Your task to perform on an android device: open a new tab in the chrome app Image 0: 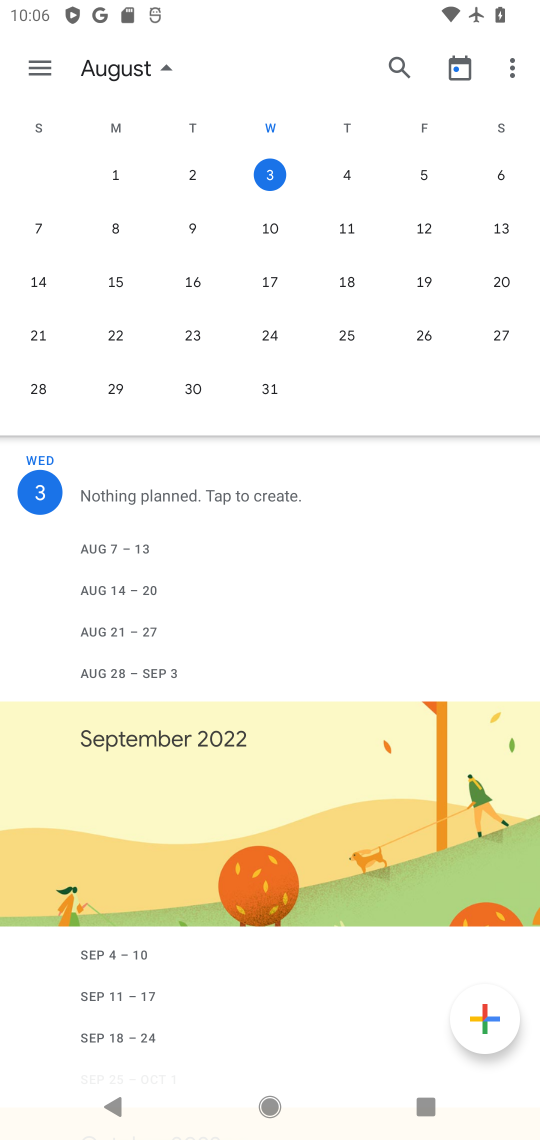
Step 0: press home button
Your task to perform on an android device: open a new tab in the chrome app Image 1: 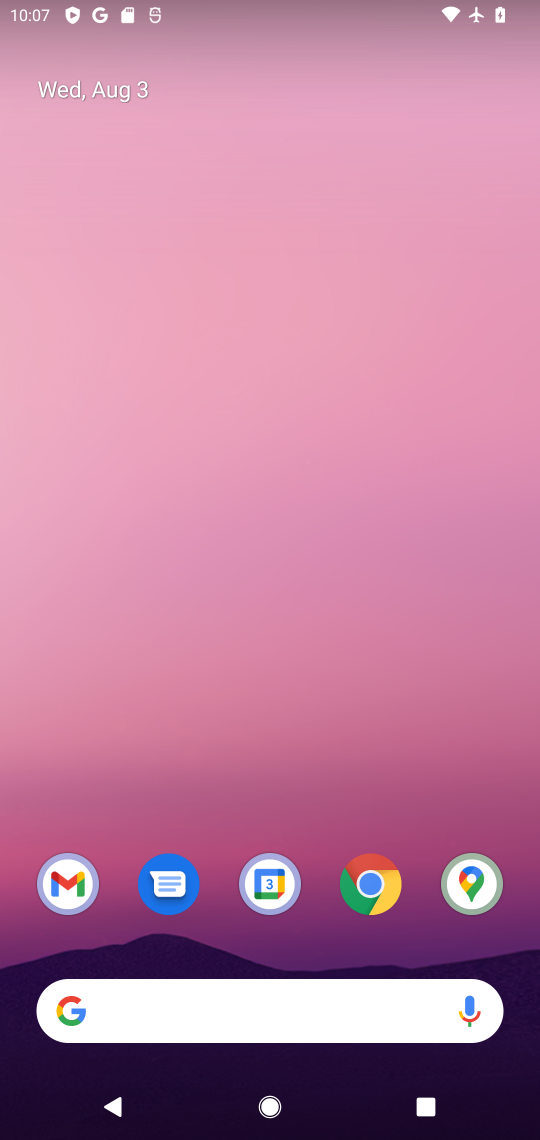
Step 1: click (379, 887)
Your task to perform on an android device: open a new tab in the chrome app Image 2: 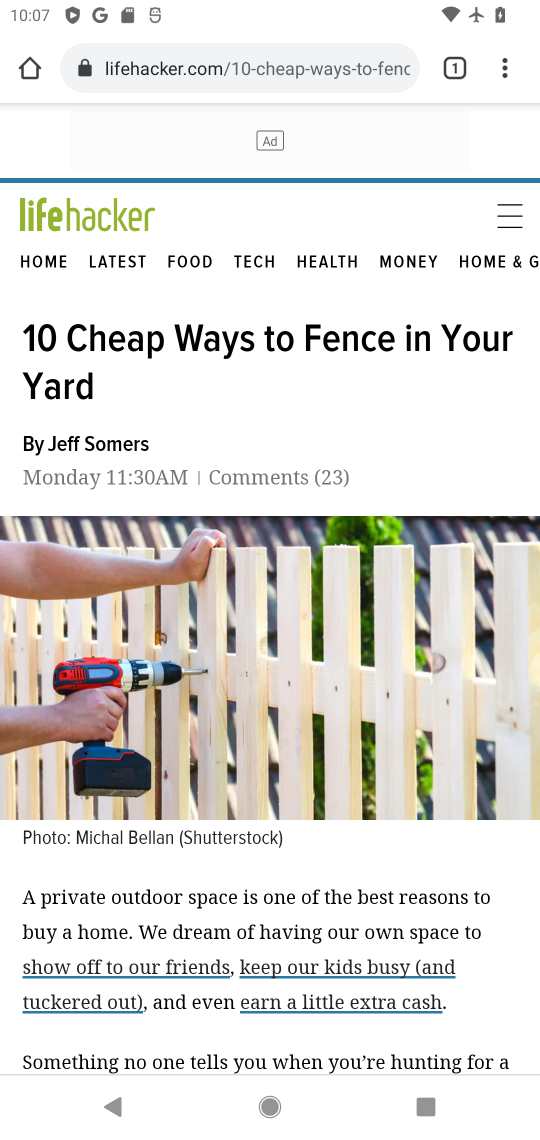
Step 2: click (453, 60)
Your task to perform on an android device: open a new tab in the chrome app Image 3: 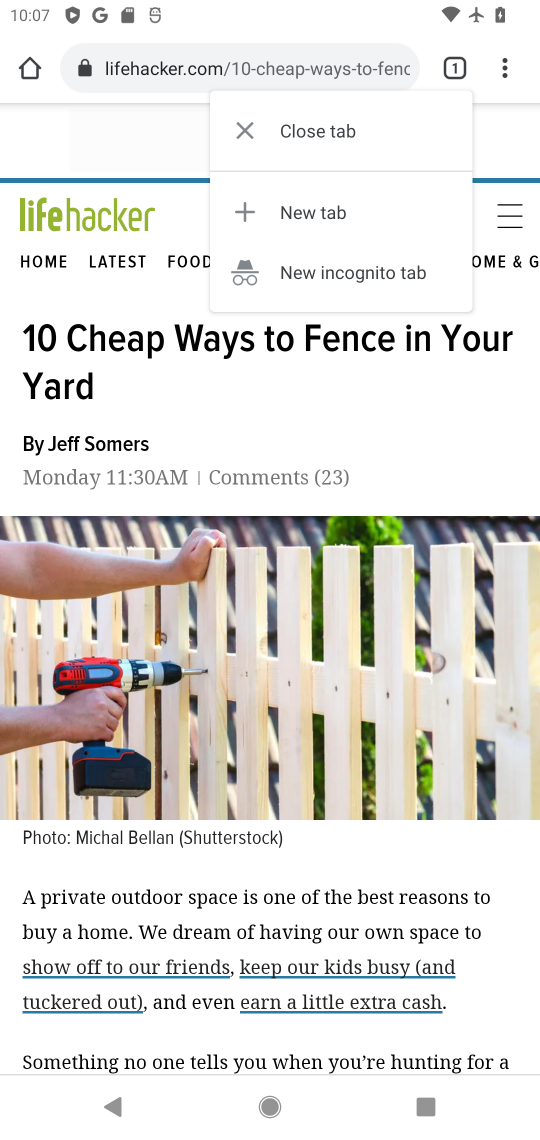
Step 3: click (334, 207)
Your task to perform on an android device: open a new tab in the chrome app Image 4: 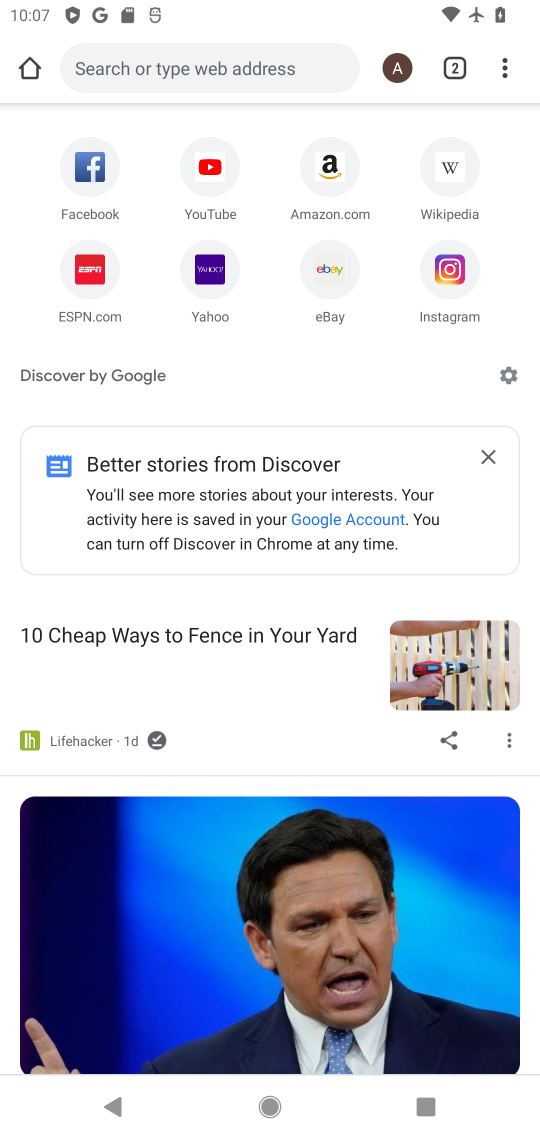
Step 4: click (358, 90)
Your task to perform on an android device: open a new tab in the chrome app Image 5: 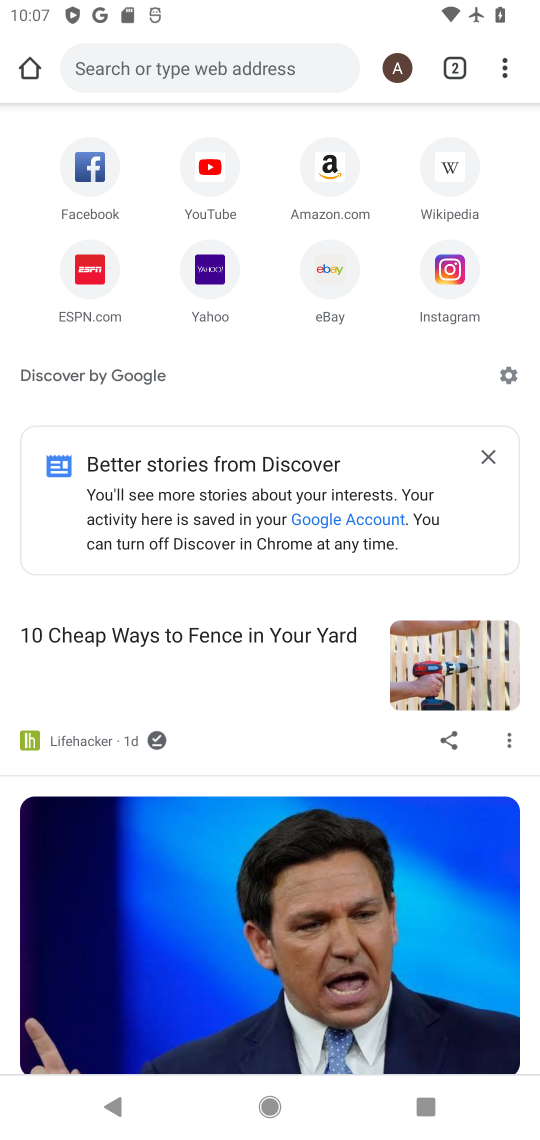
Step 5: click (466, 69)
Your task to perform on an android device: open a new tab in the chrome app Image 6: 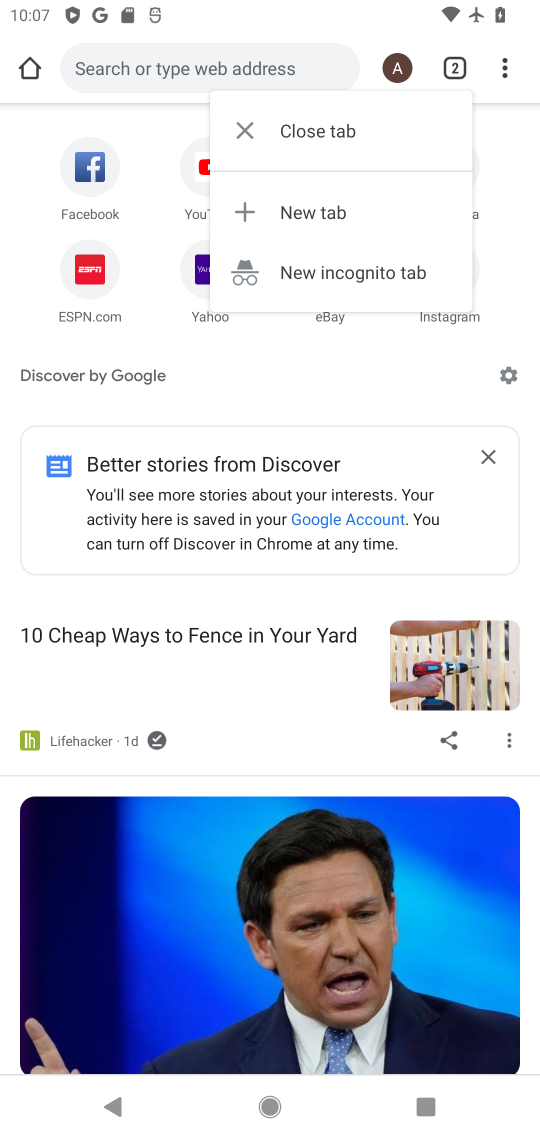
Step 6: click (466, 67)
Your task to perform on an android device: open a new tab in the chrome app Image 7: 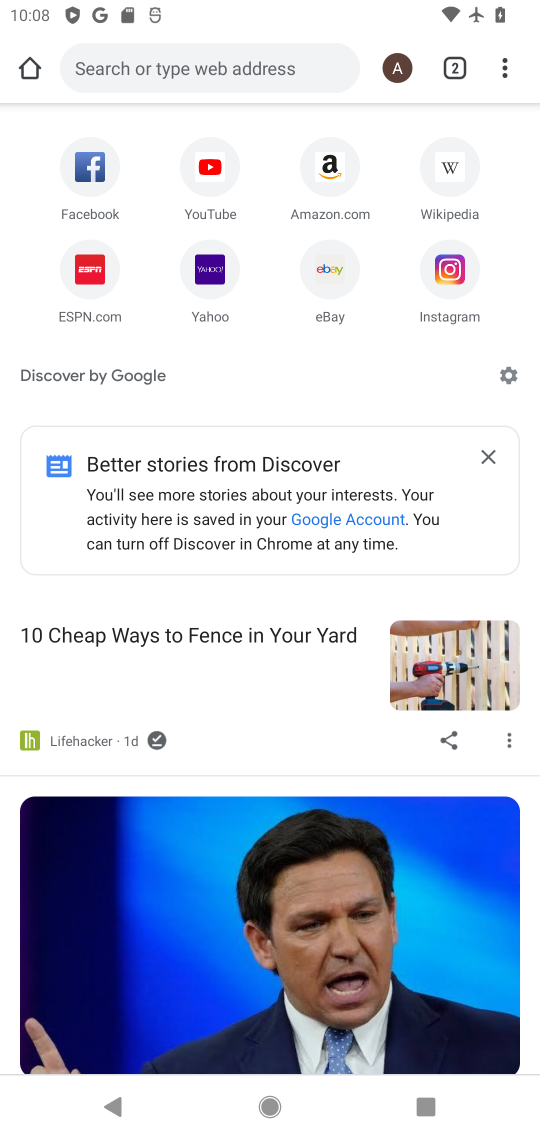
Step 7: task complete